Your task to perform on an android device: Go to CNN.com Image 0: 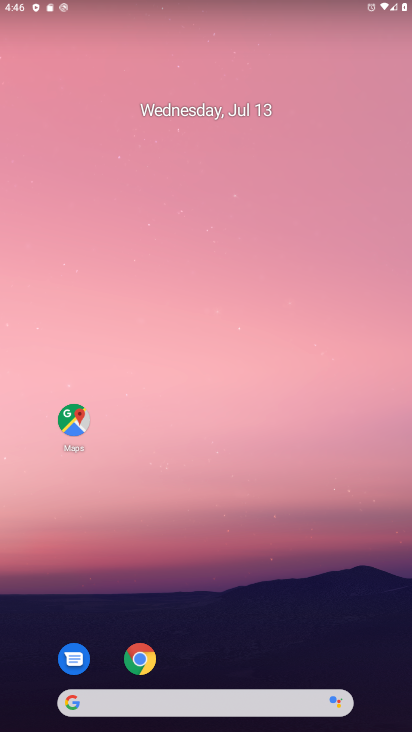
Step 0: drag from (324, 599) to (216, 130)
Your task to perform on an android device: Go to CNN.com Image 1: 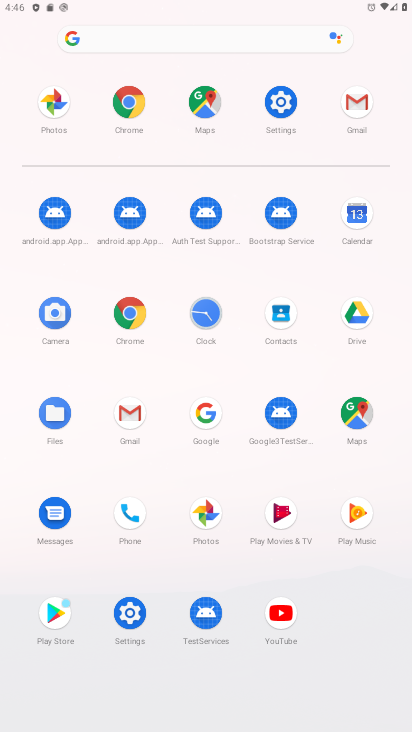
Step 1: click (129, 107)
Your task to perform on an android device: Go to CNN.com Image 2: 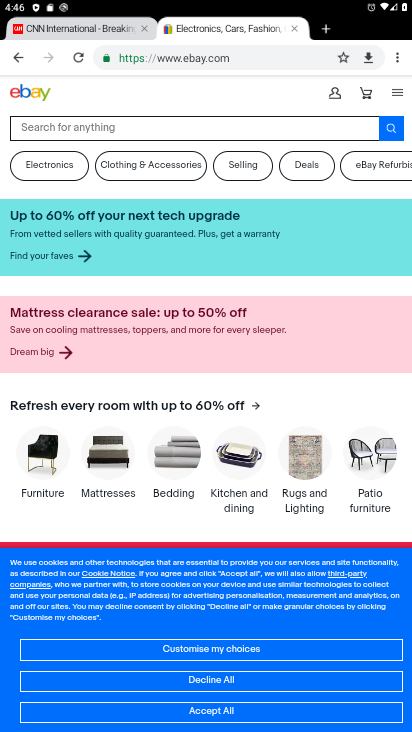
Step 2: click (182, 60)
Your task to perform on an android device: Go to CNN.com Image 3: 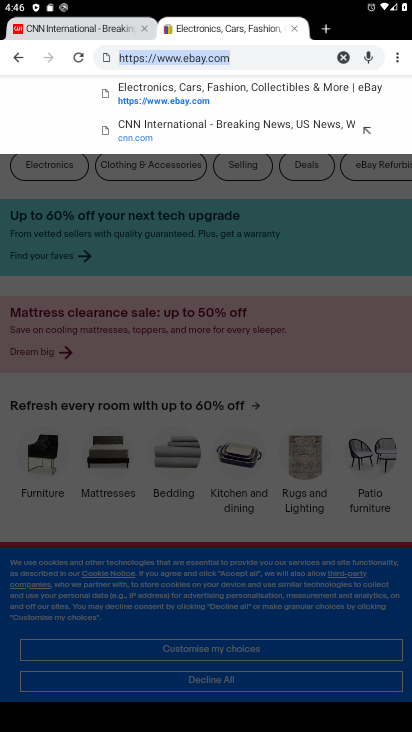
Step 3: type "cnn.com"
Your task to perform on an android device: Go to CNN.com Image 4: 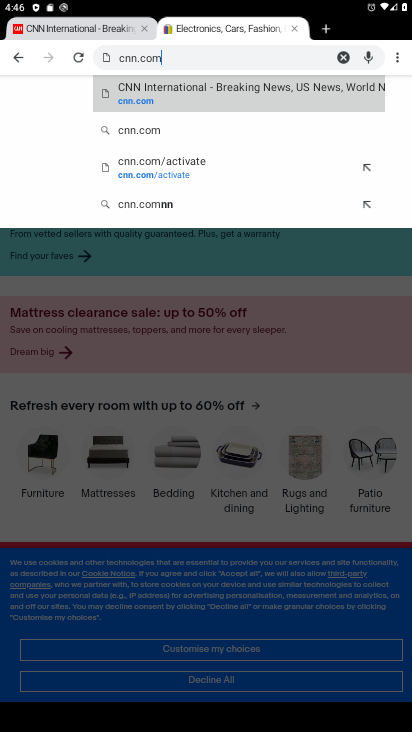
Step 4: click (141, 103)
Your task to perform on an android device: Go to CNN.com Image 5: 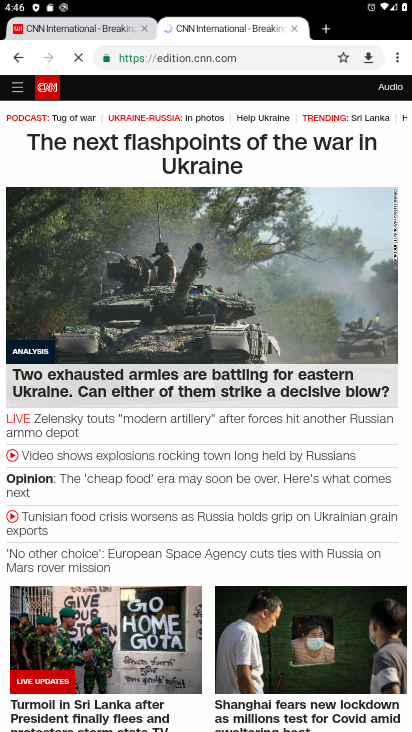
Step 5: task complete